Your task to perform on an android device: turn on location history Image 0: 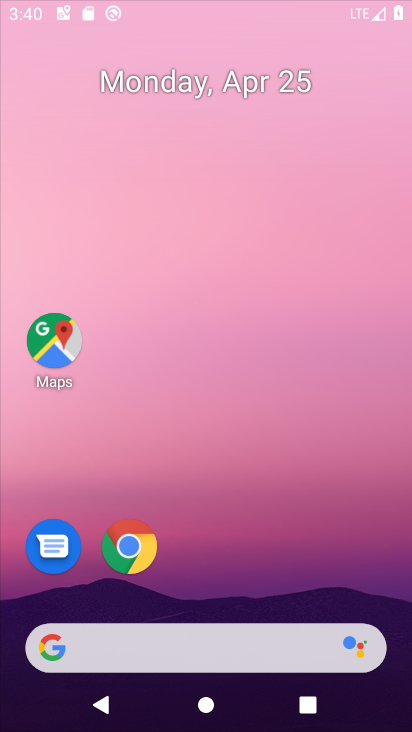
Step 0: drag from (235, 353) to (233, 85)
Your task to perform on an android device: turn on location history Image 1: 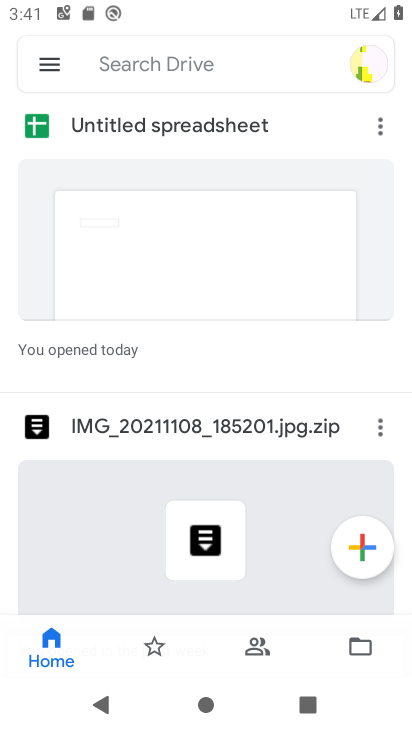
Step 1: press home button
Your task to perform on an android device: turn on location history Image 2: 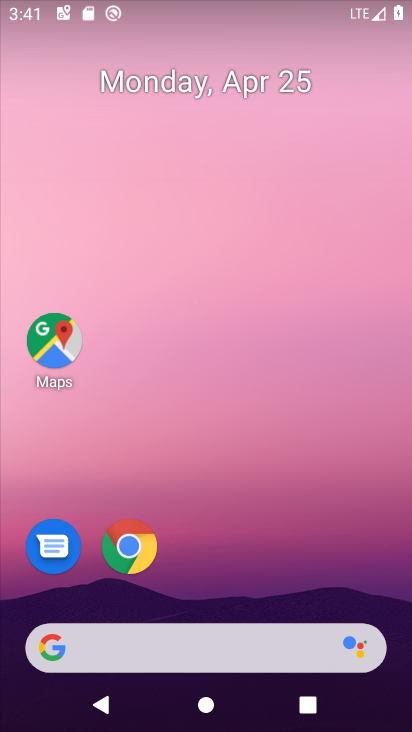
Step 2: drag from (266, 517) to (363, 52)
Your task to perform on an android device: turn on location history Image 3: 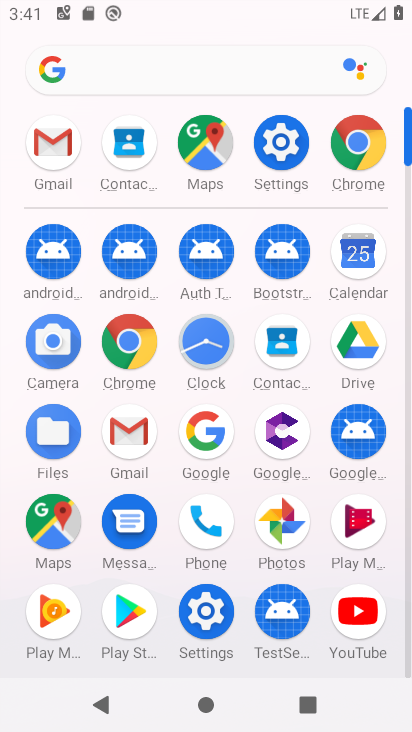
Step 3: click (202, 609)
Your task to perform on an android device: turn on location history Image 4: 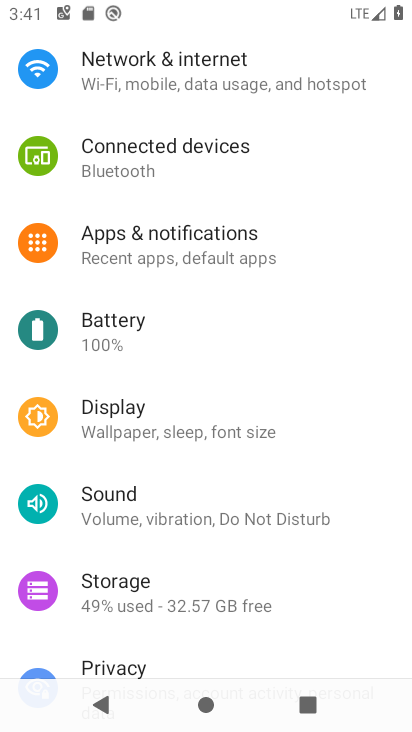
Step 4: drag from (154, 574) to (154, 250)
Your task to perform on an android device: turn on location history Image 5: 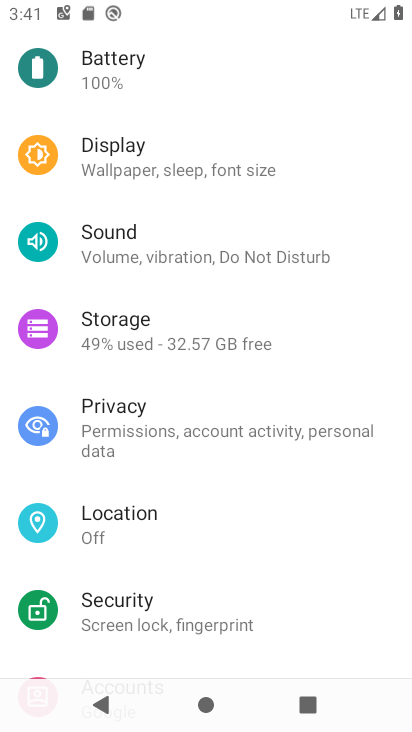
Step 5: click (153, 530)
Your task to perform on an android device: turn on location history Image 6: 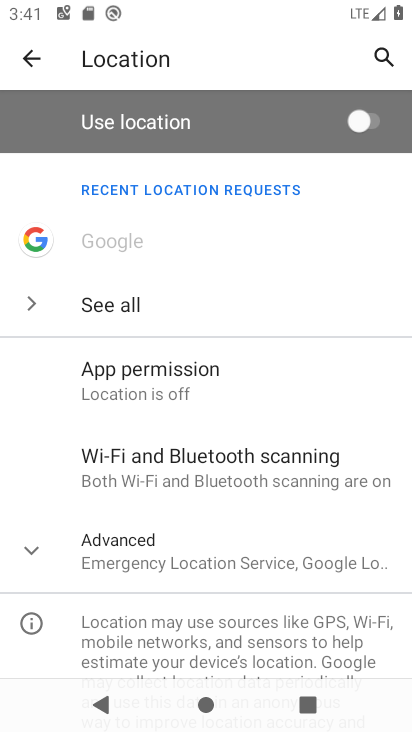
Step 6: click (154, 564)
Your task to perform on an android device: turn on location history Image 7: 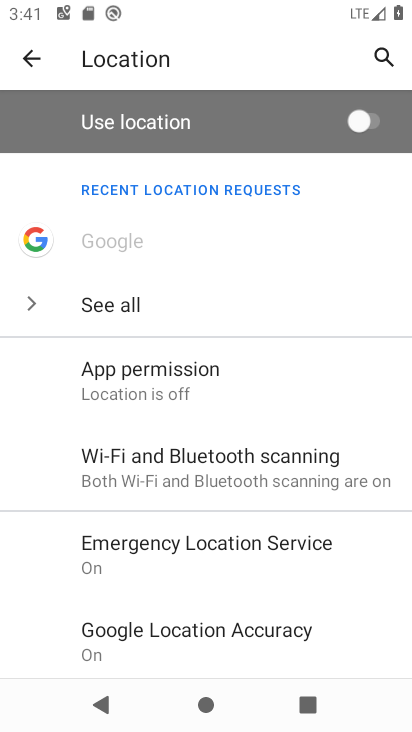
Step 7: drag from (174, 601) to (177, 370)
Your task to perform on an android device: turn on location history Image 8: 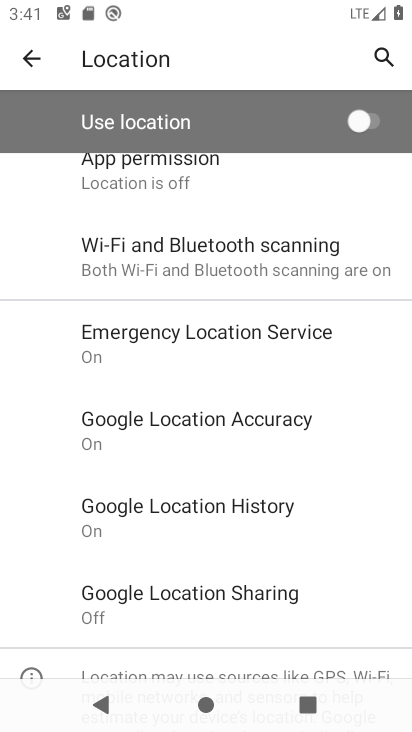
Step 8: click (218, 511)
Your task to perform on an android device: turn on location history Image 9: 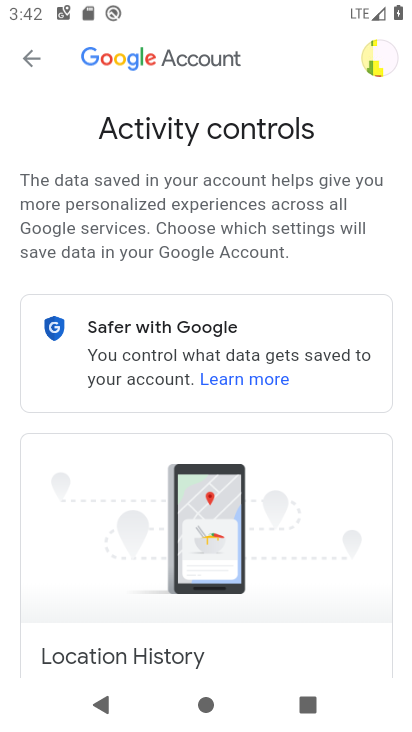
Step 9: task complete